Your task to perform on an android device: change timer sound Image 0: 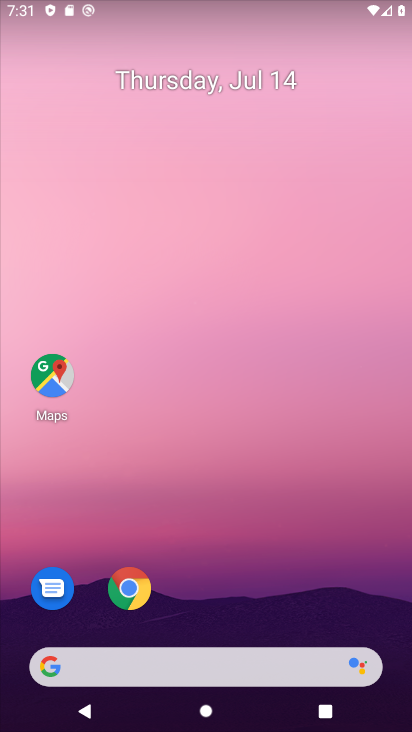
Step 0: click (47, 374)
Your task to perform on an android device: change timer sound Image 1: 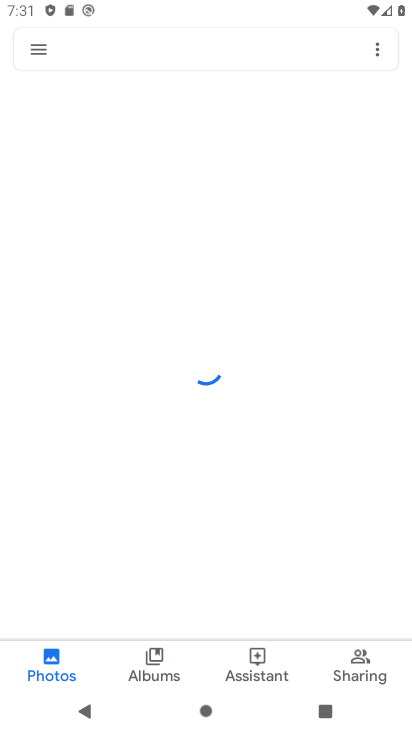
Step 1: press home button
Your task to perform on an android device: change timer sound Image 2: 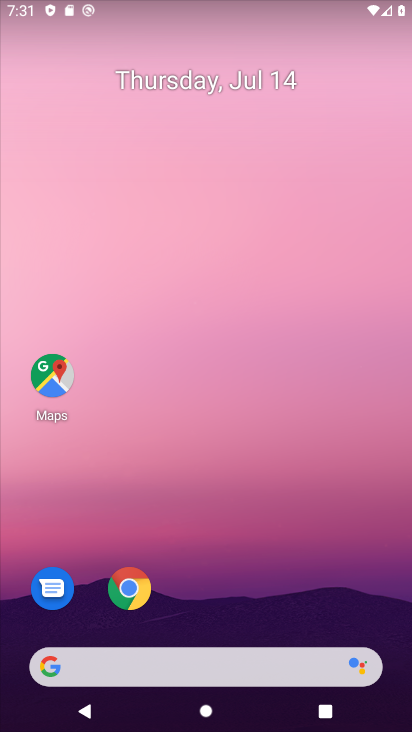
Step 2: drag from (219, 610) to (245, 232)
Your task to perform on an android device: change timer sound Image 3: 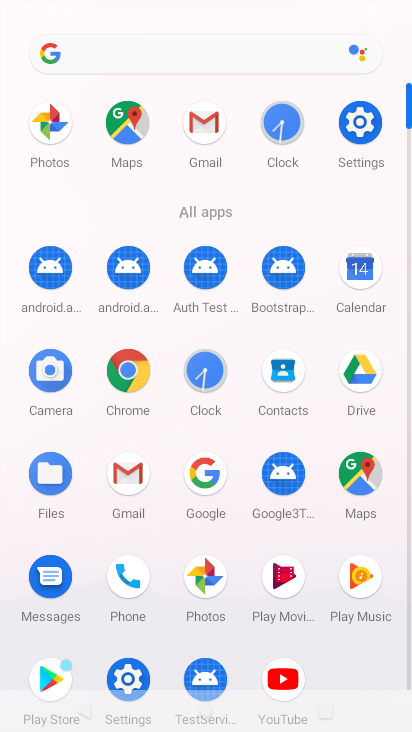
Step 3: click (225, 384)
Your task to perform on an android device: change timer sound Image 4: 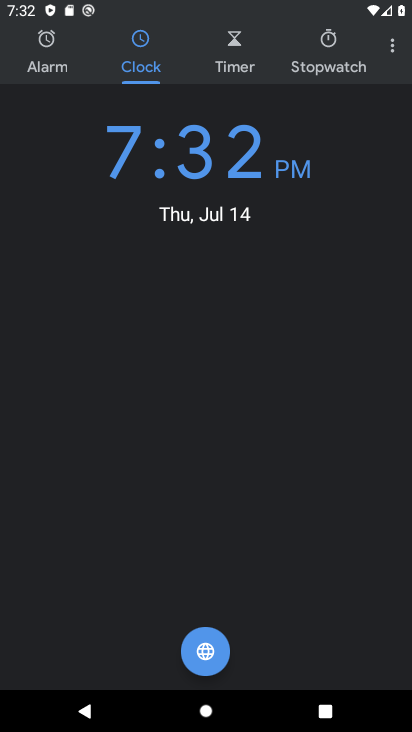
Step 4: click (395, 48)
Your task to perform on an android device: change timer sound Image 5: 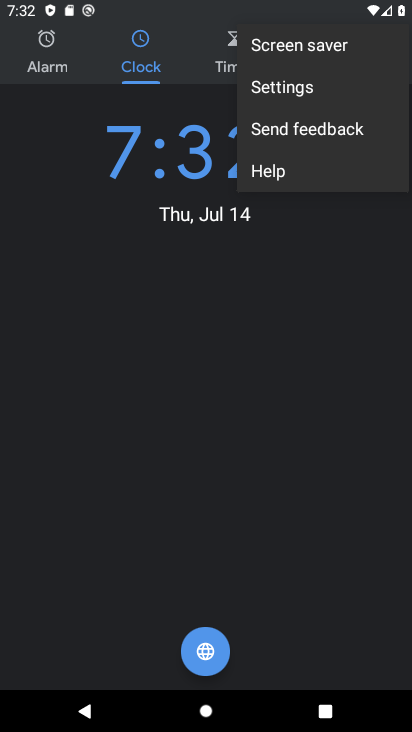
Step 5: click (283, 94)
Your task to perform on an android device: change timer sound Image 6: 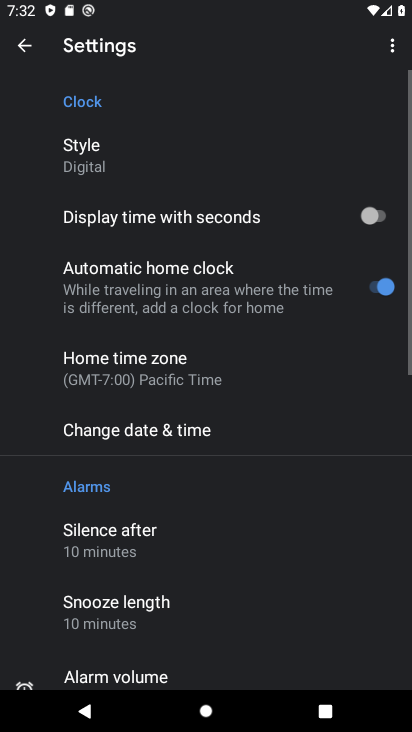
Step 6: drag from (272, 414) to (272, 122)
Your task to perform on an android device: change timer sound Image 7: 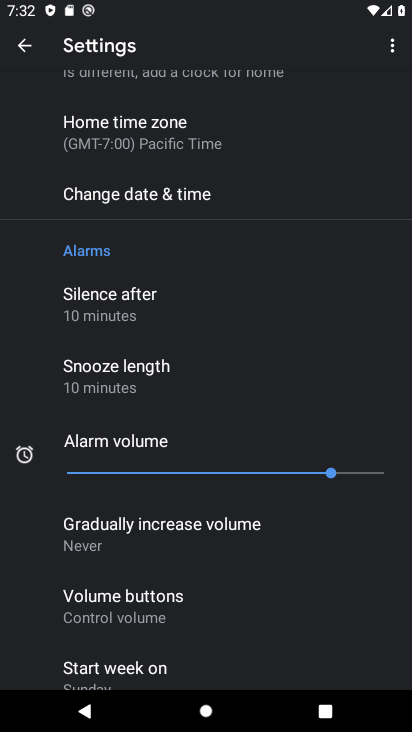
Step 7: drag from (245, 553) to (248, 271)
Your task to perform on an android device: change timer sound Image 8: 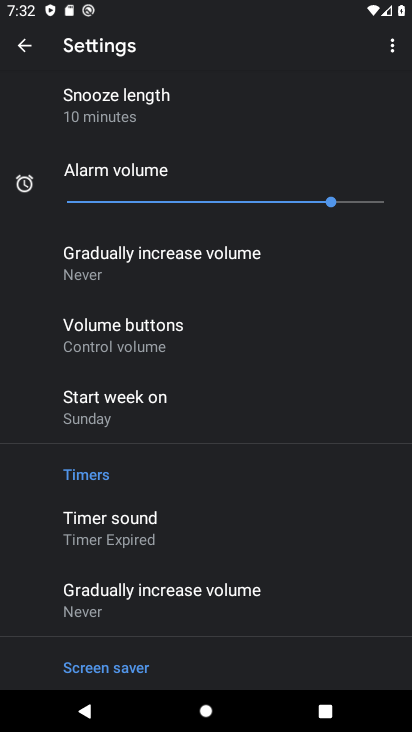
Step 8: click (143, 524)
Your task to perform on an android device: change timer sound Image 9: 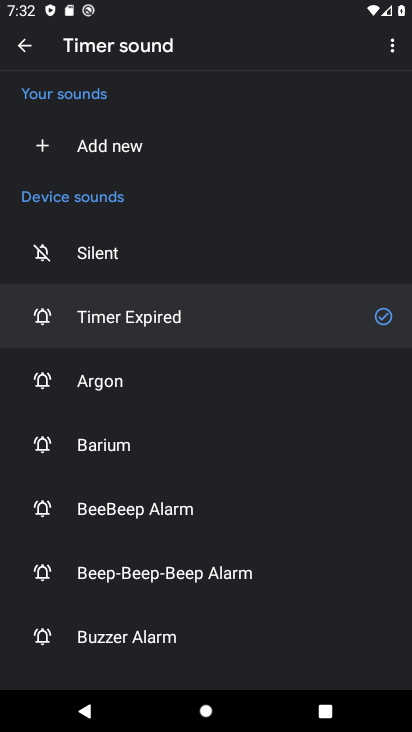
Step 9: click (96, 376)
Your task to perform on an android device: change timer sound Image 10: 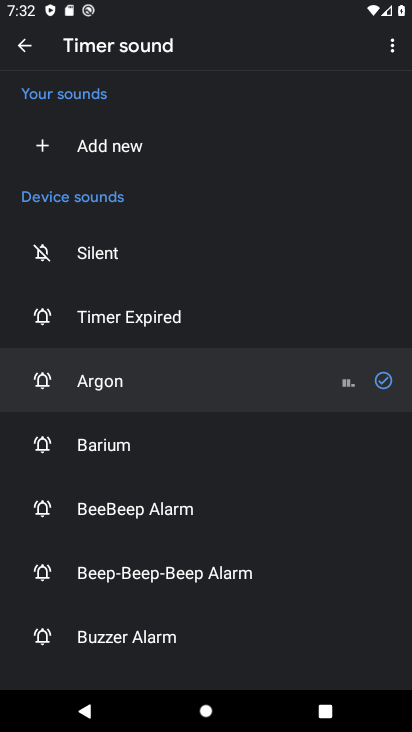
Step 10: task complete